Your task to perform on an android device: Clear the shopping cart on amazon. Image 0: 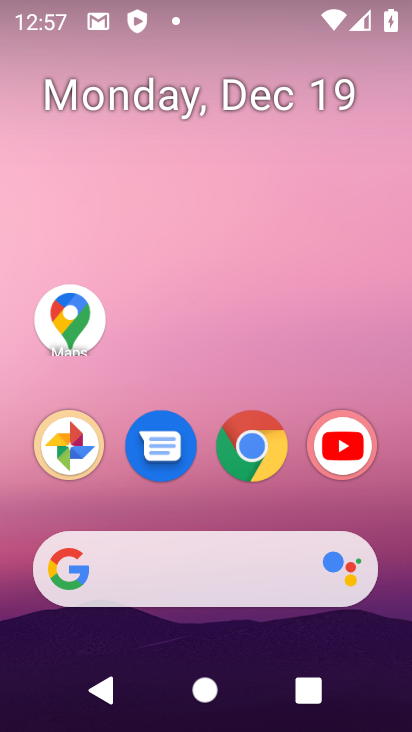
Step 0: click (230, 453)
Your task to perform on an android device: Clear the shopping cart on amazon. Image 1: 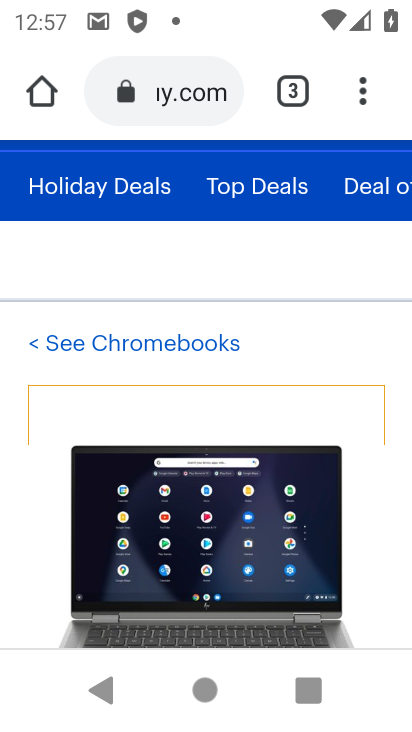
Step 1: click (180, 109)
Your task to perform on an android device: Clear the shopping cart on amazon. Image 2: 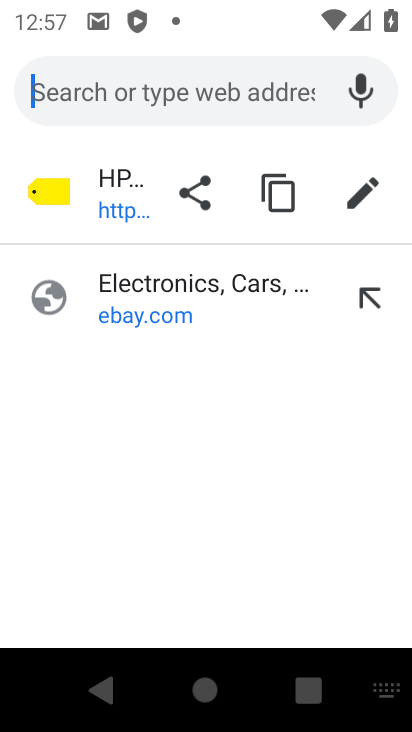
Step 2: type "amazon"
Your task to perform on an android device: Clear the shopping cart on amazon. Image 3: 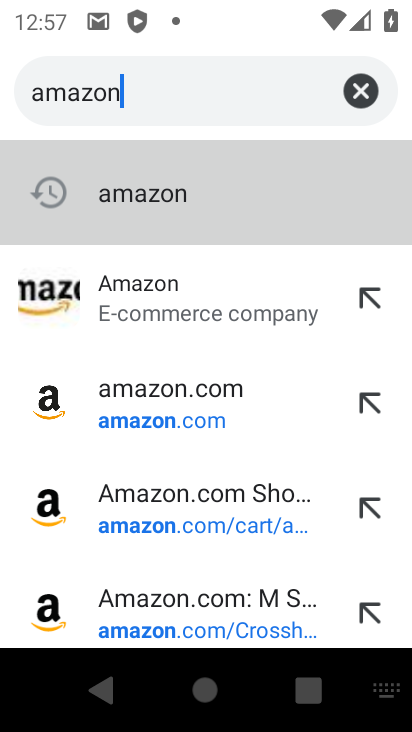
Step 3: click (167, 288)
Your task to perform on an android device: Clear the shopping cart on amazon. Image 4: 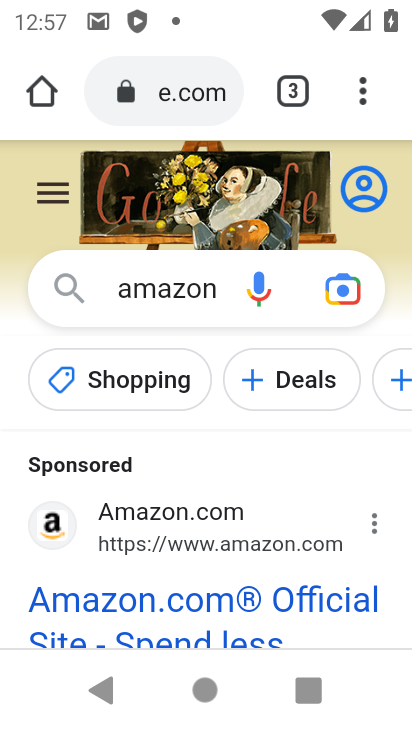
Step 4: click (241, 558)
Your task to perform on an android device: Clear the shopping cart on amazon. Image 5: 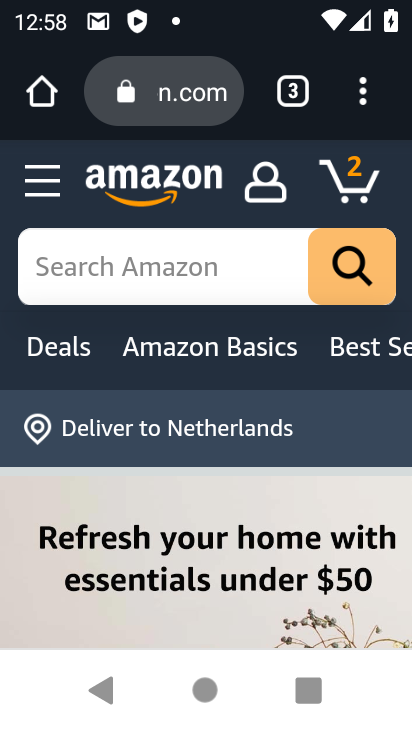
Step 5: click (130, 288)
Your task to perform on an android device: Clear the shopping cart on amazon. Image 6: 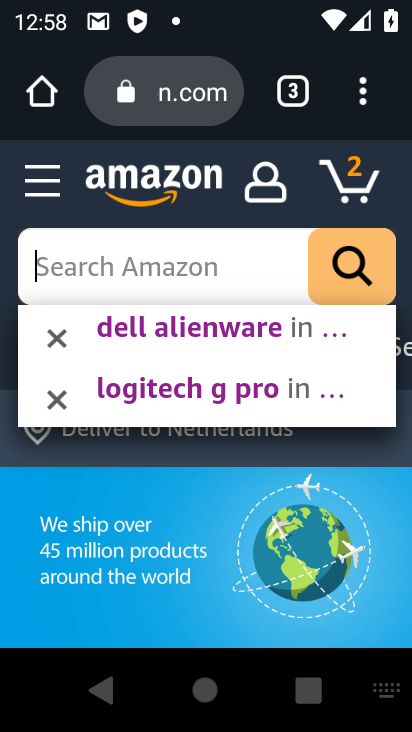
Step 6: click (336, 183)
Your task to perform on an android device: Clear the shopping cart on amazon. Image 7: 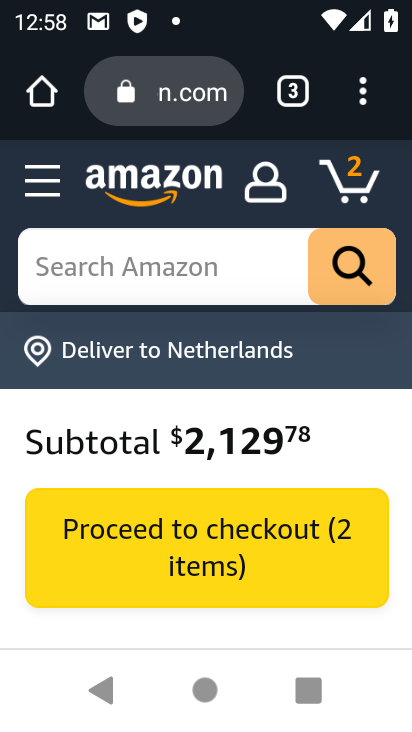
Step 7: drag from (200, 553) to (206, 221)
Your task to perform on an android device: Clear the shopping cart on amazon. Image 8: 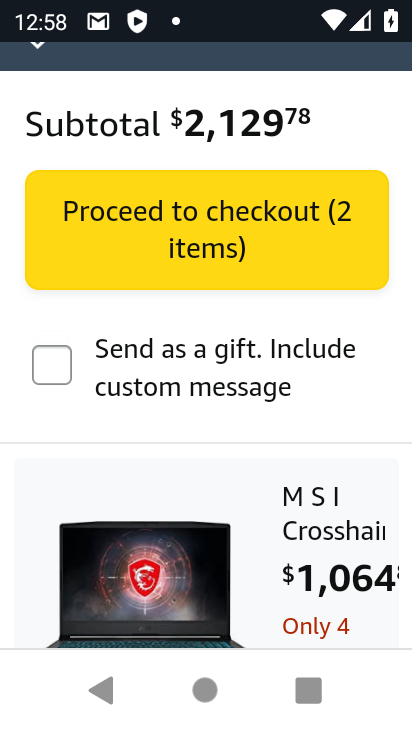
Step 8: drag from (174, 507) to (113, 172)
Your task to perform on an android device: Clear the shopping cart on amazon. Image 9: 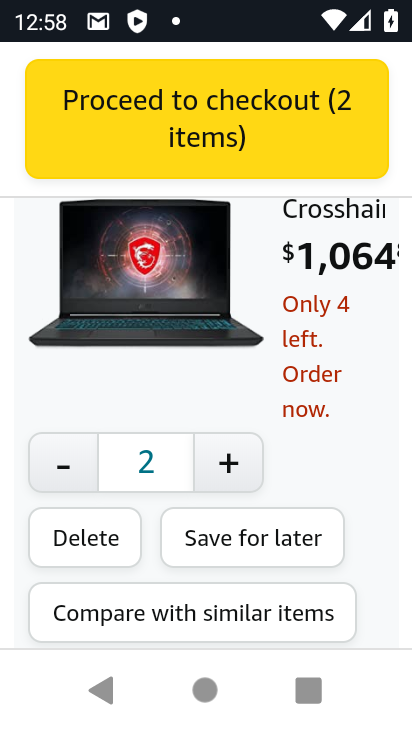
Step 9: click (92, 536)
Your task to perform on an android device: Clear the shopping cart on amazon. Image 10: 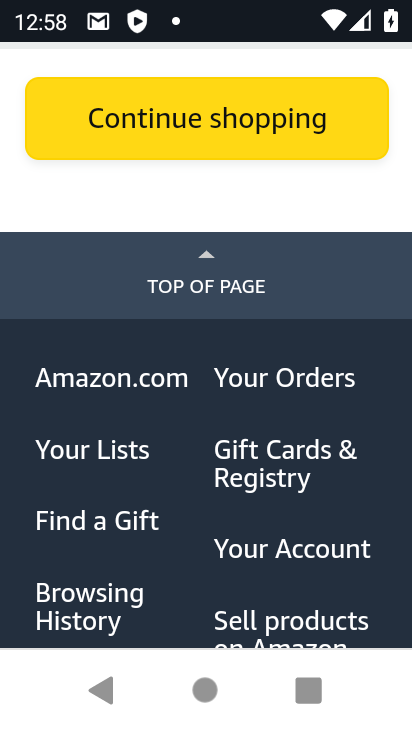
Step 10: task complete